Your task to perform on an android device: Show me the alarms in the clock app Image 0: 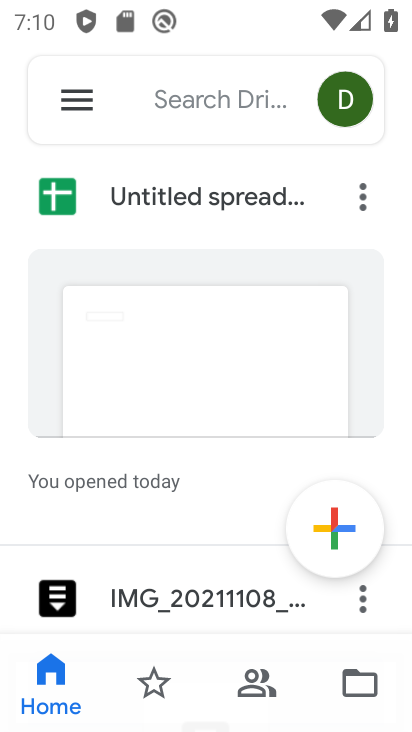
Step 0: press home button
Your task to perform on an android device: Show me the alarms in the clock app Image 1: 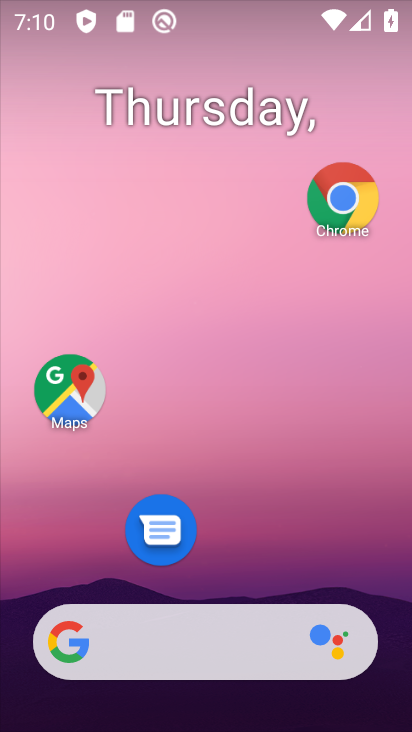
Step 1: drag from (245, 705) to (235, 276)
Your task to perform on an android device: Show me the alarms in the clock app Image 2: 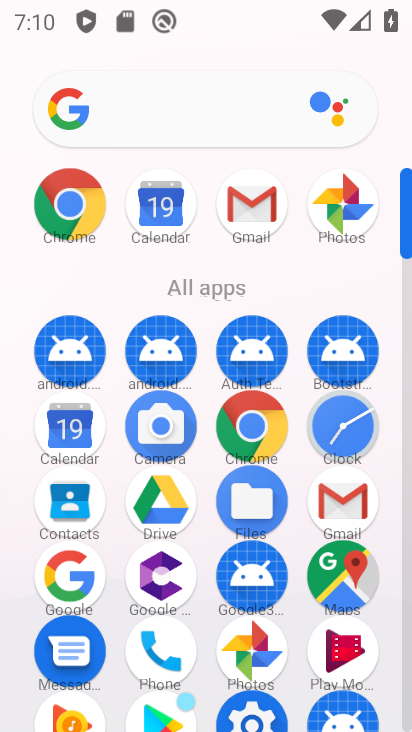
Step 2: click (330, 431)
Your task to perform on an android device: Show me the alarms in the clock app Image 3: 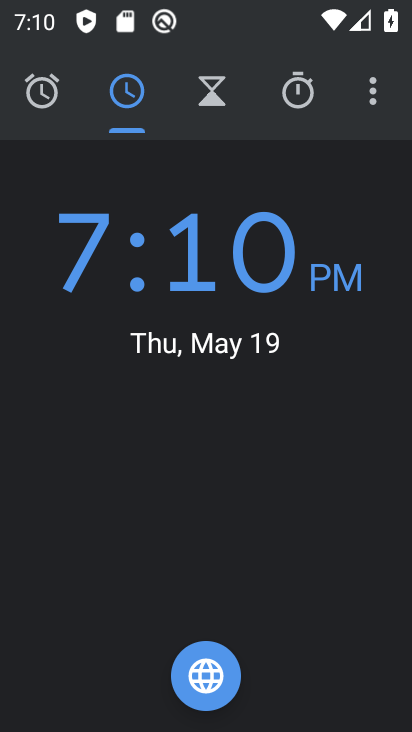
Step 3: click (24, 97)
Your task to perform on an android device: Show me the alarms in the clock app Image 4: 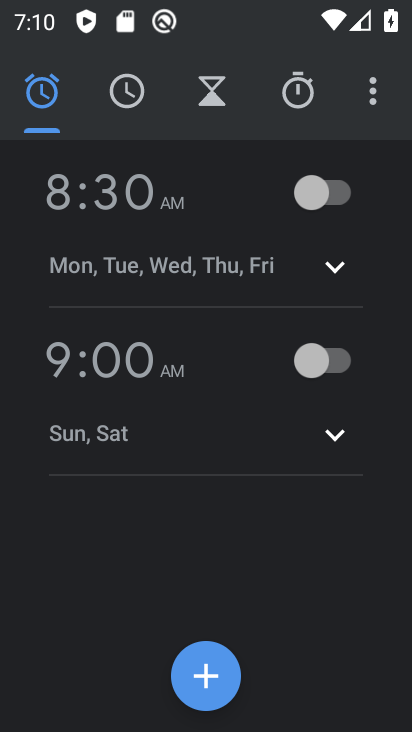
Step 4: click (196, 199)
Your task to perform on an android device: Show me the alarms in the clock app Image 5: 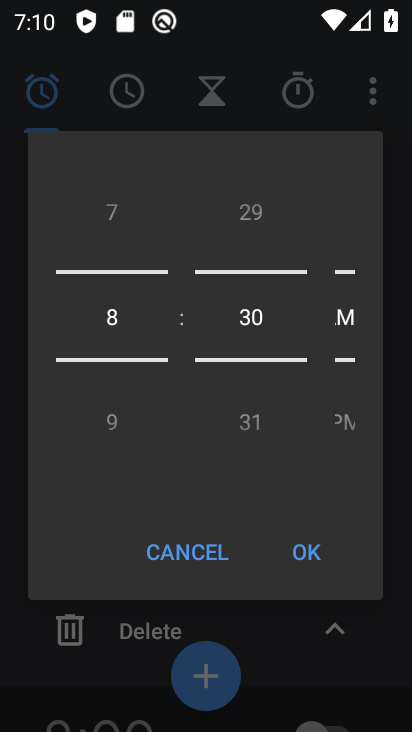
Step 5: click (318, 548)
Your task to perform on an android device: Show me the alarms in the clock app Image 6: 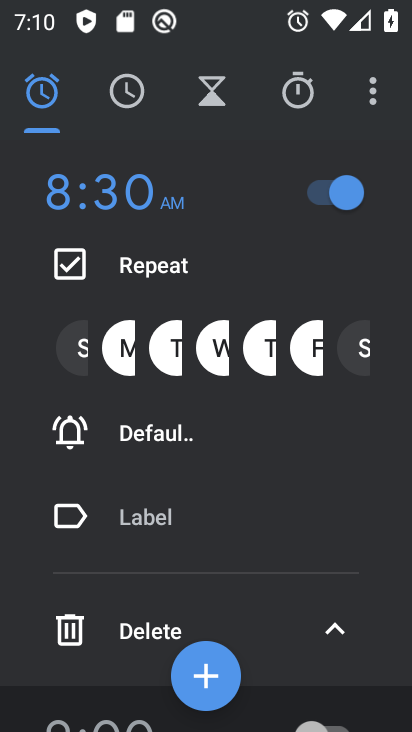
Step 6: task complete